Your task to perform on an android device: Open Amazon Image 0: 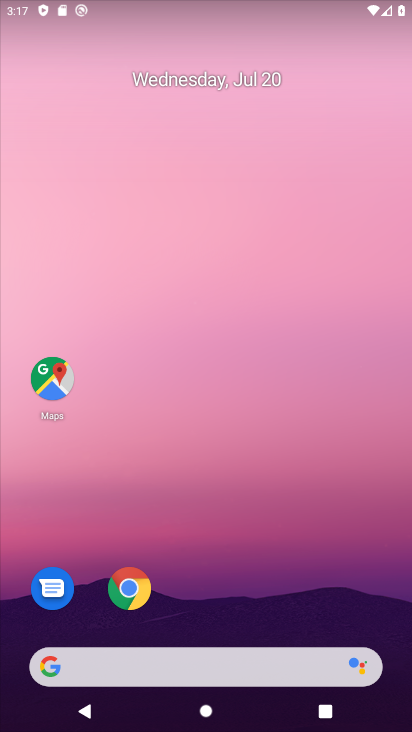
Step 0: drag from (303, 578) to (277, 285)
Your task to perform on an android device: Open Amazon Image 1: 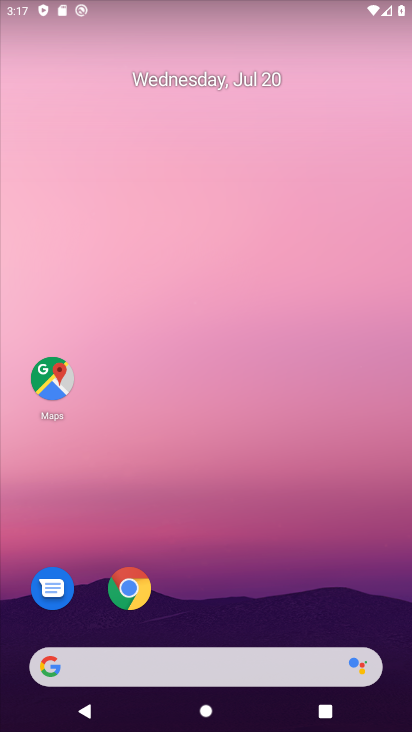
Step 1: drag from (289, 588) to (194, 46)
Your task to perform on an android device: Open Amazon Image 2: 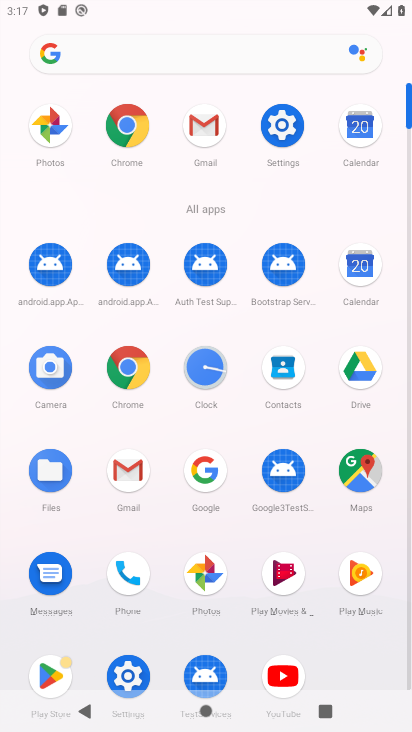
Step 2: click (137, 127)
Your task to perform on an android device: Open Amazon Image 3: 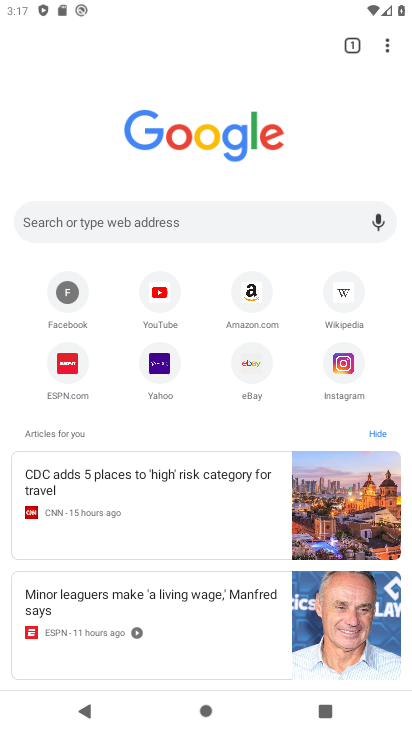
Step 3: click (253, 288)
Your task to perform on an android device: Open Amazon Image 4: 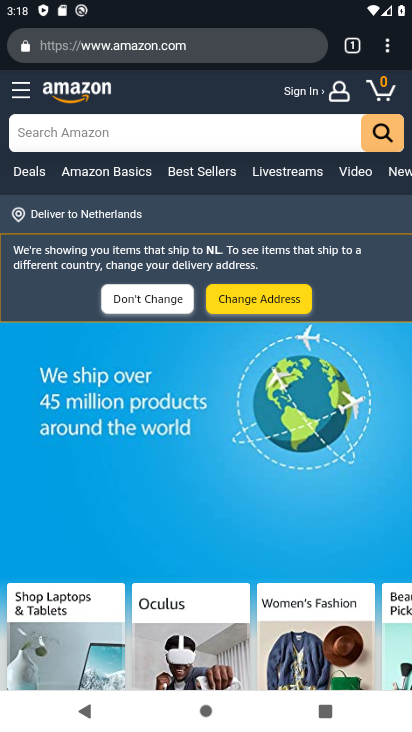
Step 4: task complete